Your task to perform on an android device: Open CNN.com Image 0: 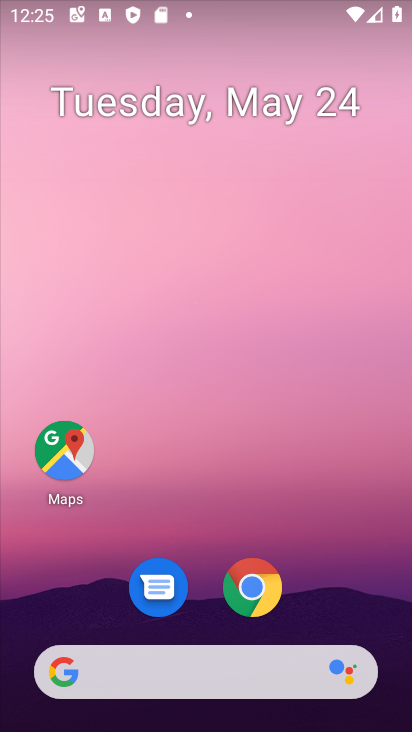
Step 0: click (89, 672)
Your task to perform on an android device: Open CNN.com Image 1: 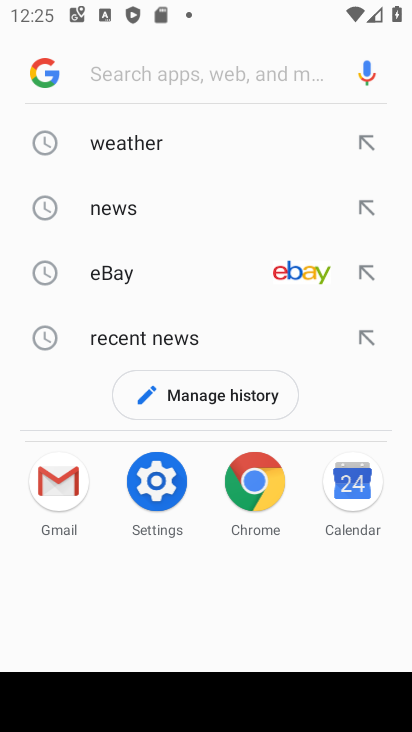
Step 1: type "cnn.com"
Your task to perform on an android device: Open CNN.com Image 2: 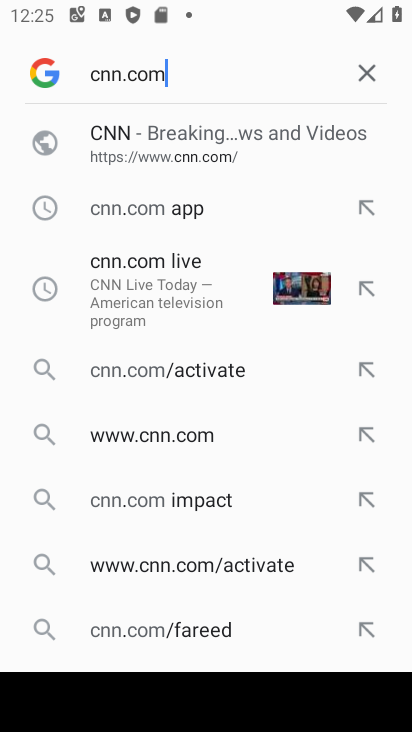
Step 2: click (206, 150)
Your task to perform on an android device: Open CNN.com Image 3: 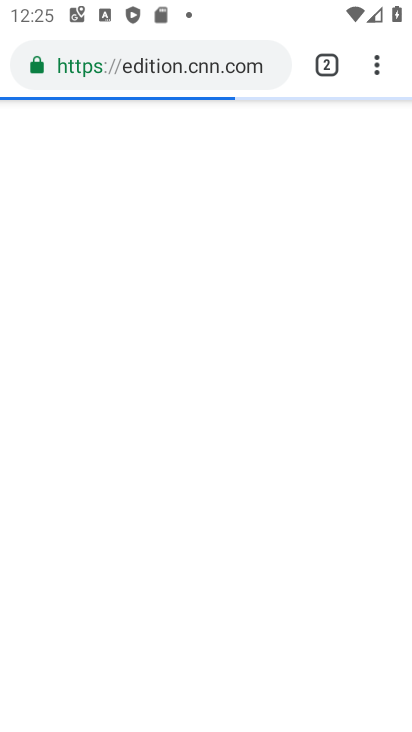
Step 3: task complete